Your task to perform on an android device: turn smart compose on in the gmail app Image 0: 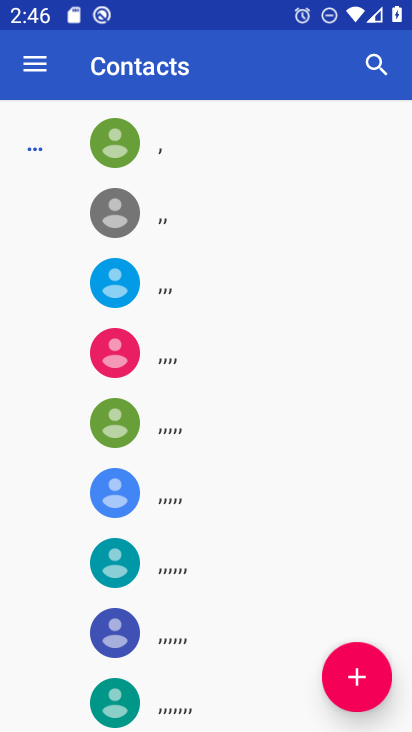
Step 0: press home button
Your task to perform on an android device: turn smart compose on in the gmail app Image 1: 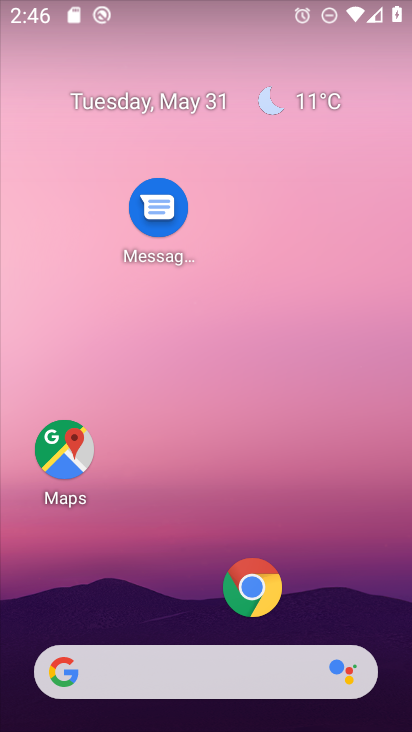
Step 1: drag from (200, 630) to (260, 152)
Your task to perform on an android device: turn smart compose on in the gmail app Image 2: 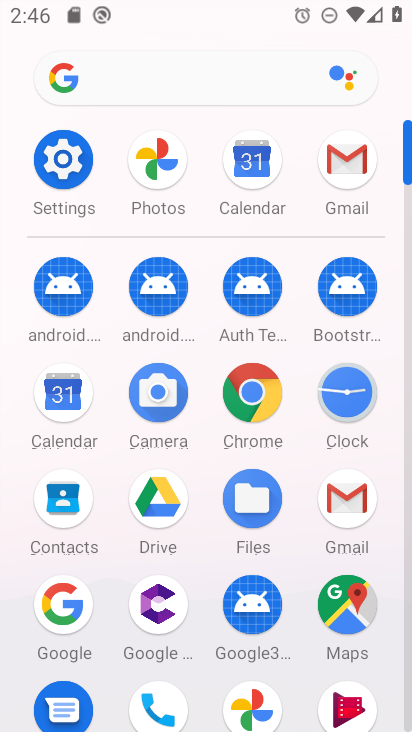
Step 2: click (354, 494)
Your task to perform on an android device: turn smart compose on in the gmail app Image 3: 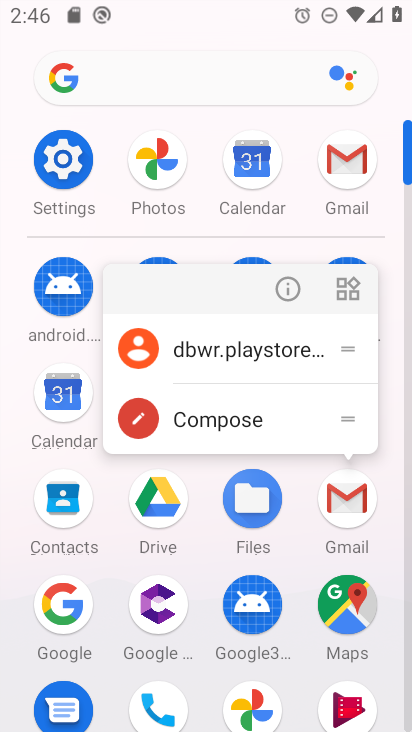
Step 3: click (300, 277)
Your task to perform on an android device: turn smart compose on in the gmail app Image 4: 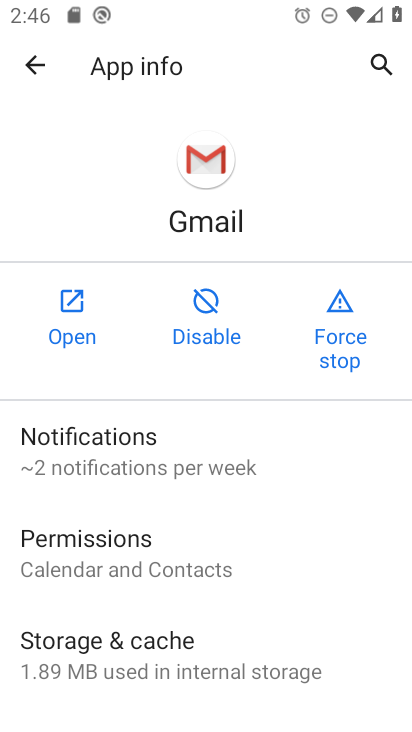
Step 4: click (83, 323)
Your task to perform on an android device: turn smart compose on in the gmail app Image 5: 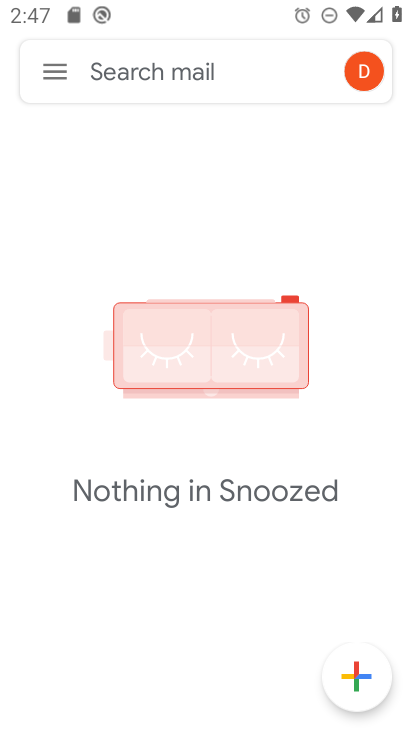
Step 5: click (37, 57)
Your task to perform on an android device: turn smart compose on in the gmail app Image 6: 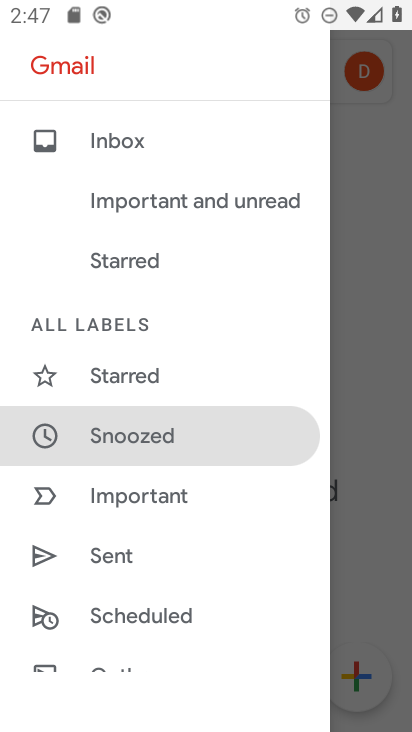
Step 6: drag from (159, 575) to (238, 24)
Your task to perform on an android device: turn smart compose on in the gmail app Image 7: 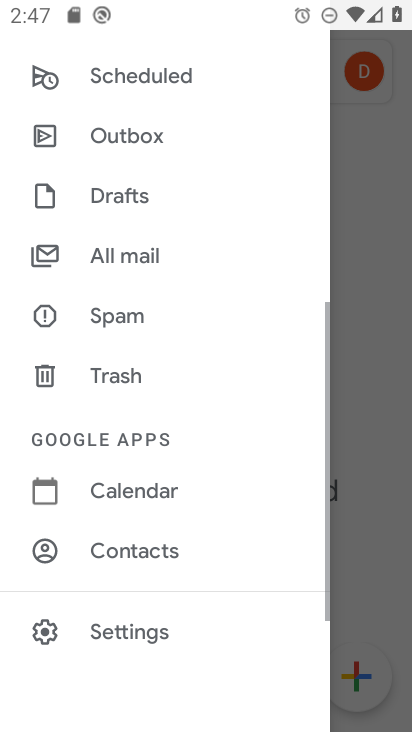
Step 7: click (139, 648)
Your task to perform on an android device: turn smart compose on in the gmail app Image 8: 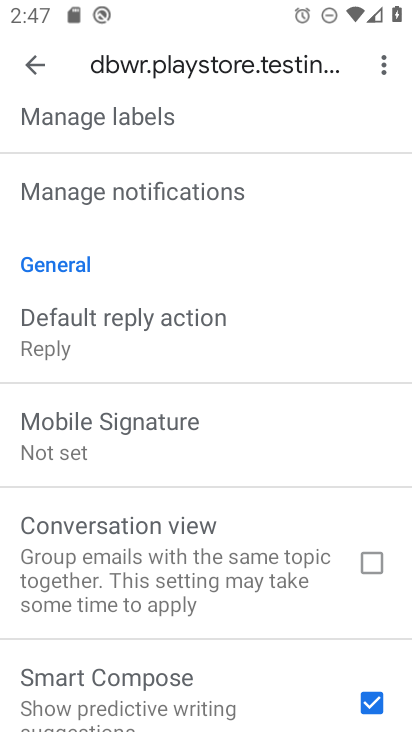
Step 8: task complete